Your task to perform on an android device: turn off priority inbox in the gmail app Image 0: 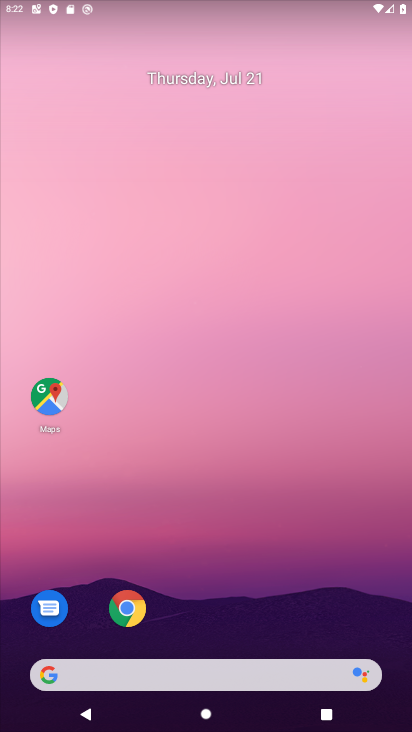
Step 0: drag from (32, 681) to (204, 186)
Your task to perform on an android device: turn off priority inbox in the gmail app Image 1: 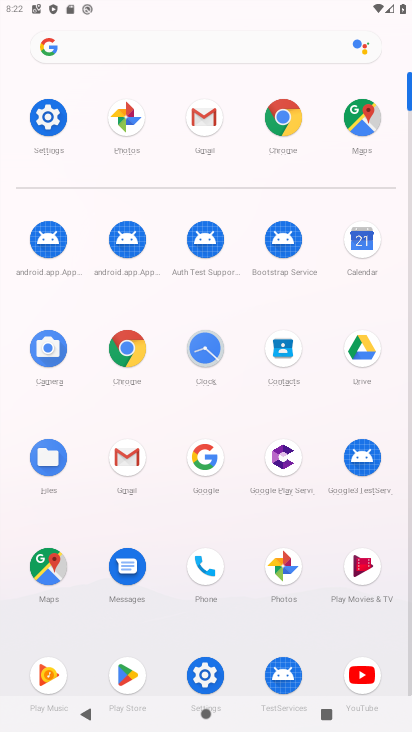
Step 1: click (117, 470)
Your task to perform on an android device: turn off priority inbox in the gmail app Image 2: 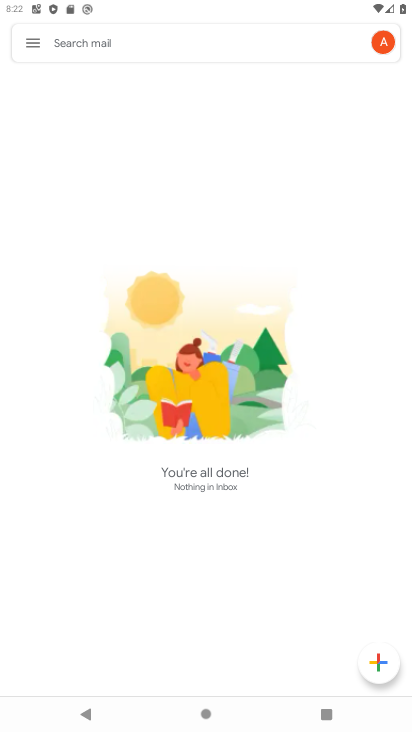
Step 2: click (25, 42)
Your task to perform on an android device: turn off priority inbox in the gmail app Image 3: 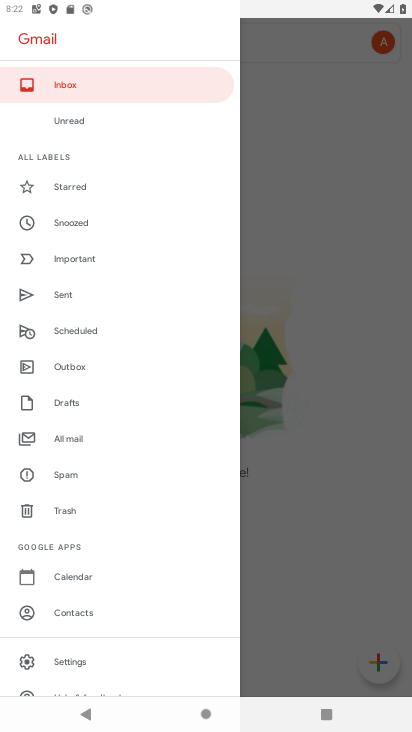
Step 3: click (76, 668)
Your task to perform on an android device: turn off priority inbox in the gmail app Image 4: 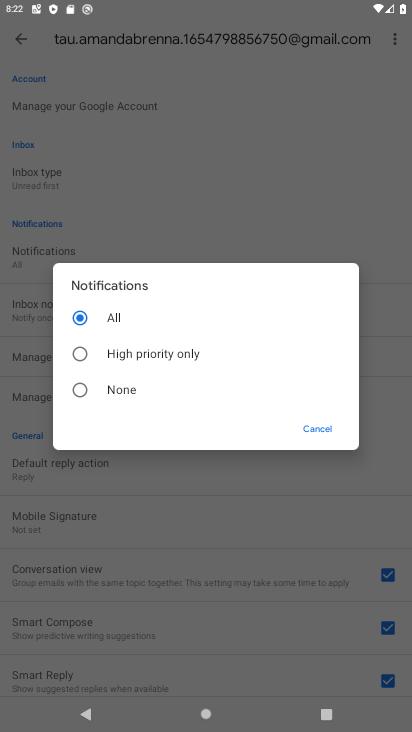
Step 4: click (304, 428)
Your task to perform on an android device: turn off priority inbox in the gmail app Image 5: 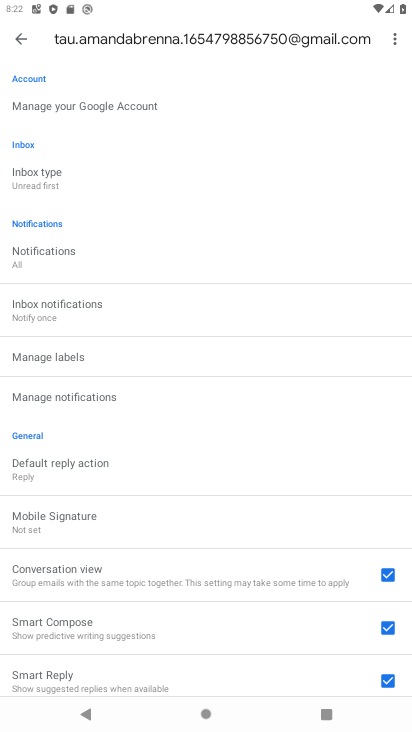
Step 5: click (67, 174)
Your task to perform on an android device: turn off priority inbox in the gmail app Image 6: 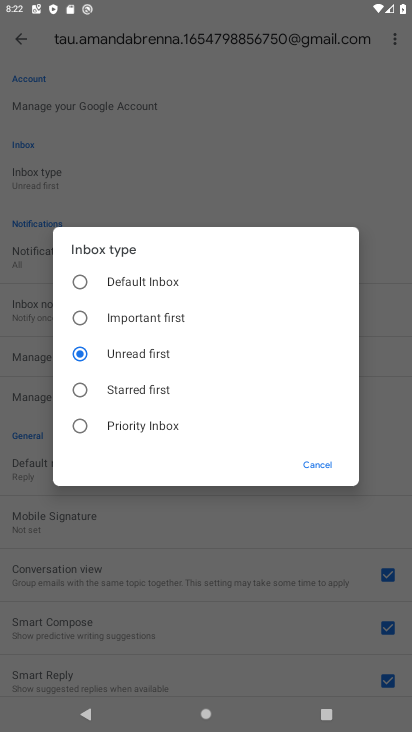
Step 6: click (94, 428)
Your task to perform on an android device: turn off priority inbox in the gmail app Image 7: 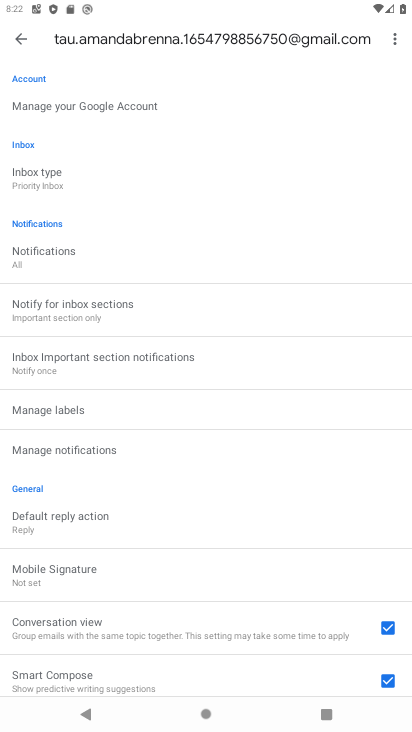
Step 7: task complete